Your task to perform on an android device: Go to Android settings Image 0: 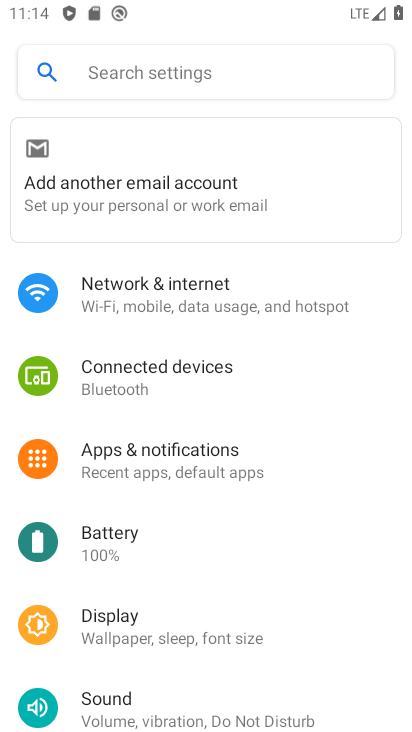
Step 0: press home button
Your task to perform on an android device: Go to Android settings Image 1: 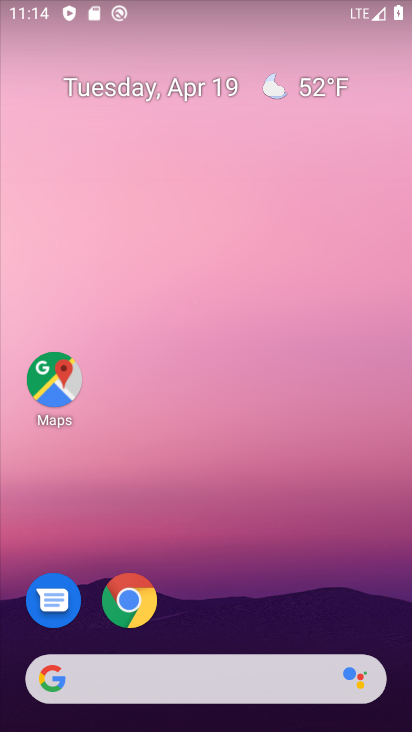
Step 1: drag from (223, 630) to (257, 104)
Your task to perform on an android device: Go to Android settings Image 2: 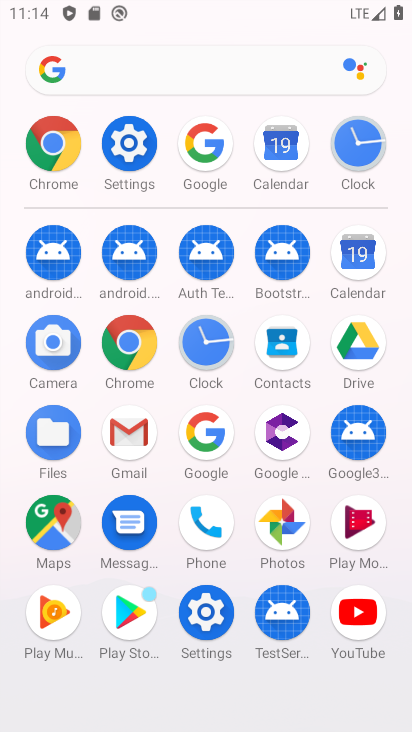
Step 2: click (121, 151)
Your task to perform on an android device: Go to Android settings Image 3: 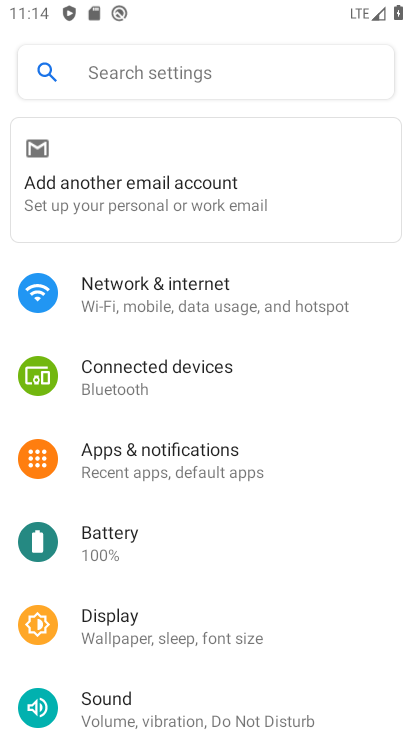
Step 3: task complete